Your task to perform on an android device: Search for Mexican restaurants on Maps Image 0: 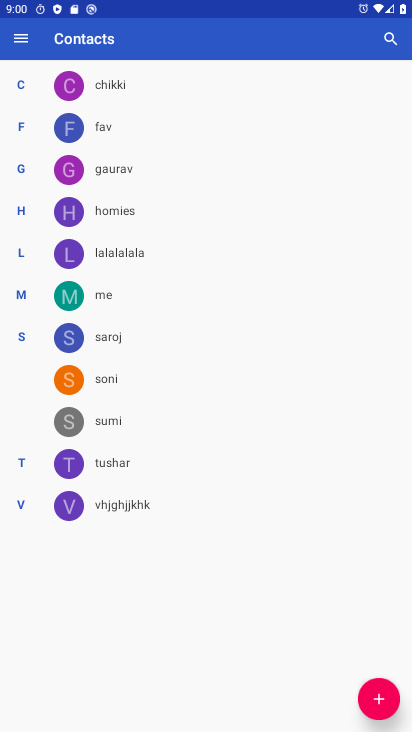
Step 0: press home button
Your task to perform on an android device: Search for Mexican restaurants on Maps Image 1: 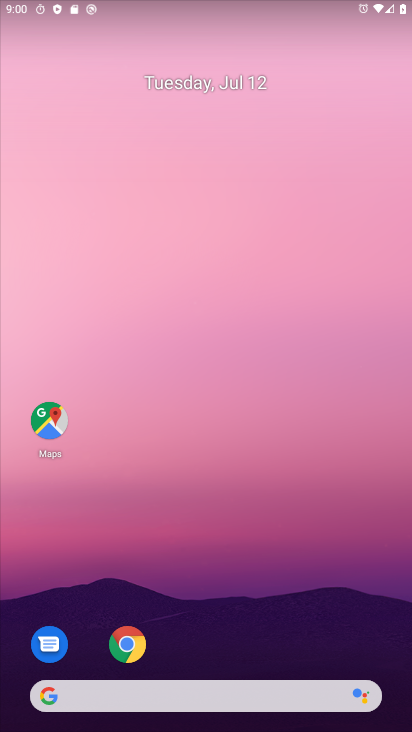
Step 1: click (53, 428)
Your task to perform on an android device: Search for Mexican restaurants on Maps Image 2: 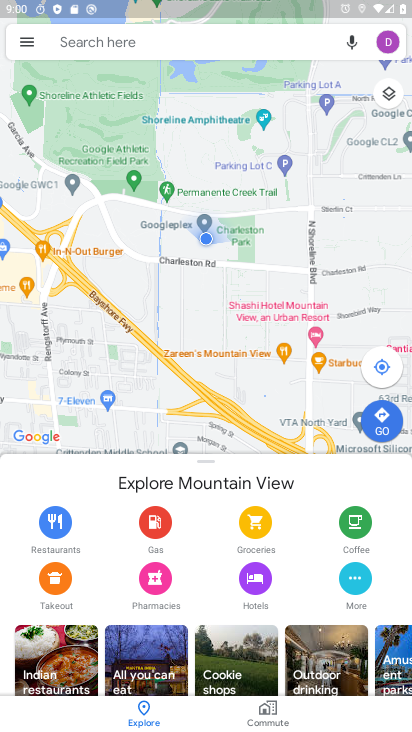
Step 2: click (57, 42)
Your task to perform on an android device: Search for Mexican restaurants on Maps Image 3: 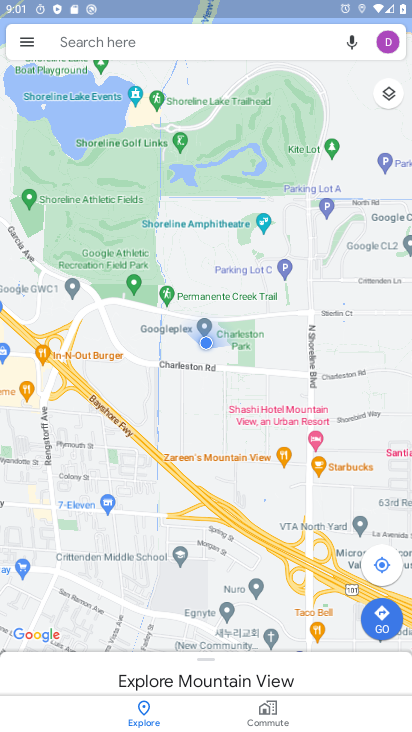
Step 3: click (76, 44)
Your task to perform on an android device: Search for Mexican restaurants on Maps Image 4: 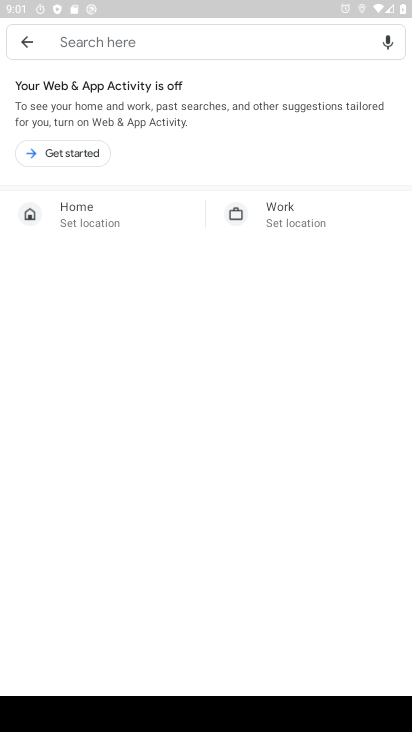
Step 4: type "Mexican restaurants"
Your task to perform on an android device: Search for Mexican restaurants on Maps Image 5: 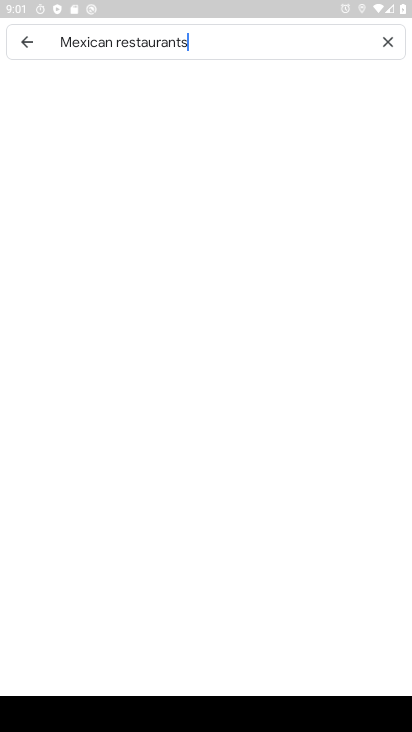
Step 5: type ""
Your task to perform on an android device: Search for Mexican restaurants on Maps Image 6: 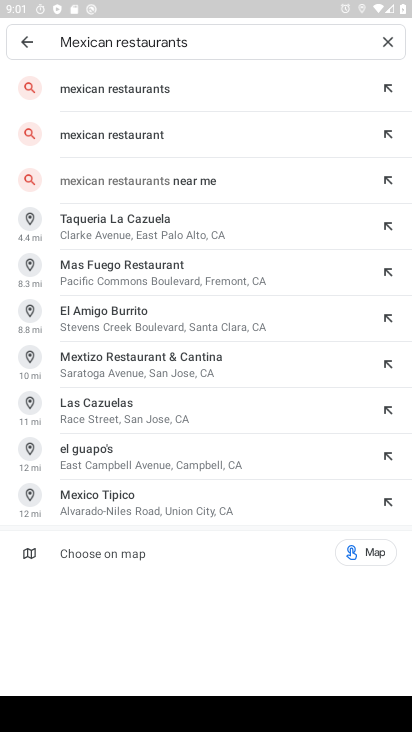
Step 6: click (153, 110)
Your task to perform on an android device: Search for Mexican restaurants on Maps Image 7: 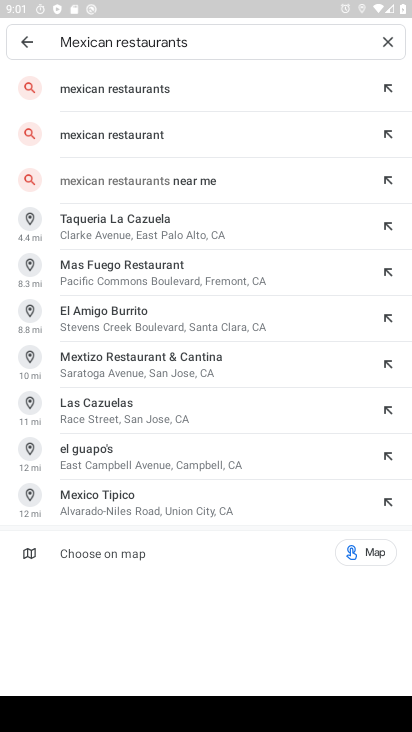
Step 7: click (150, 95)
Your task to perform on an android device: Search for Mexican restaurants on Maps Image 8: 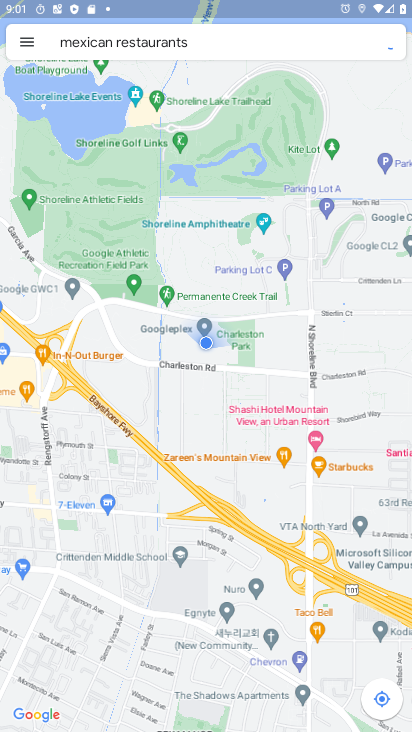
Step 8: task complete